Your task to perform on an android device: Show me recent news Image 0: 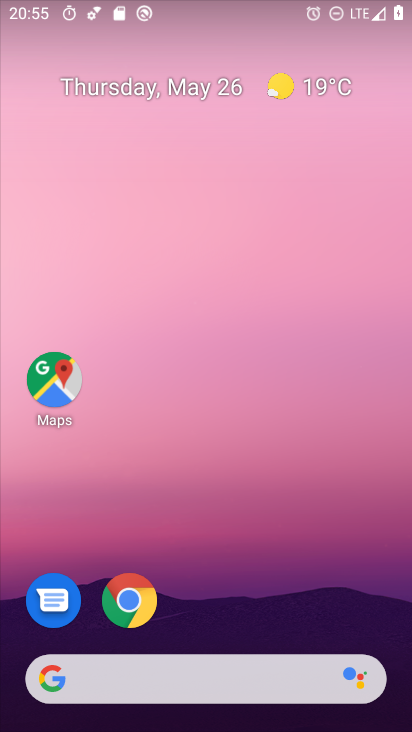
Step 0: press home button
Your task to perform on an android device: Show me recent news Image 1: 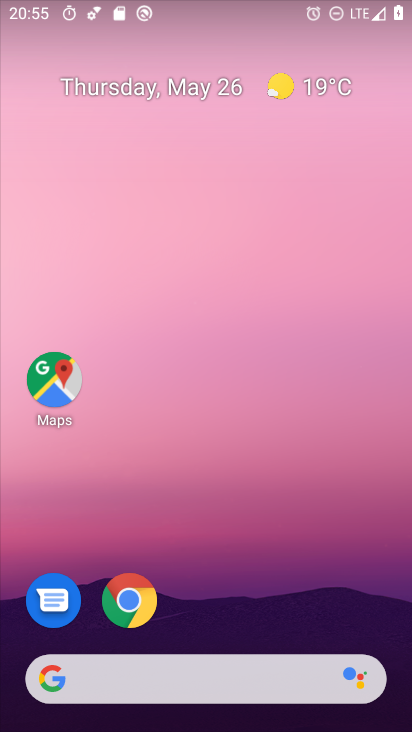
Step 1: click (55, 678)
Your task to perform on an android device: Show me recent news Image 2: 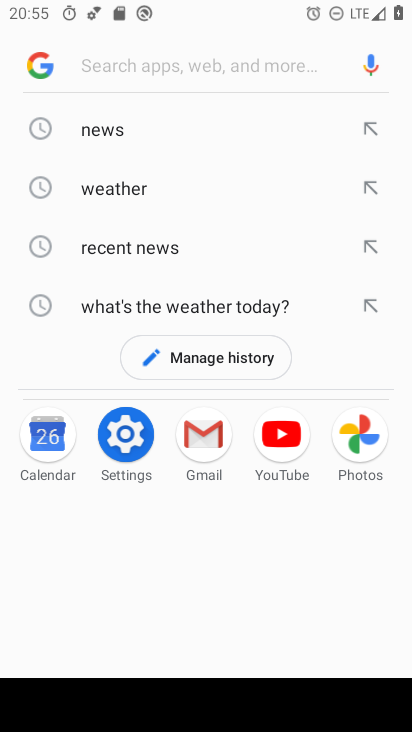
Step 2: click (129, 255)
Your task to perform on an android device: Show me recent news Image 3: 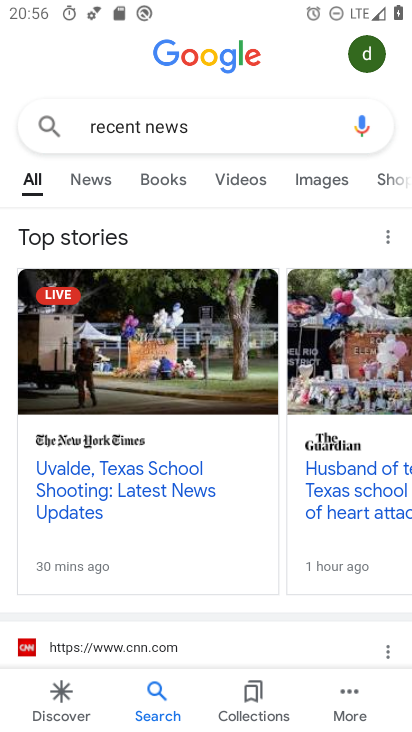
Step 3: task complete